Your task to perform on an android device: Open Yahoo.com Image 0: 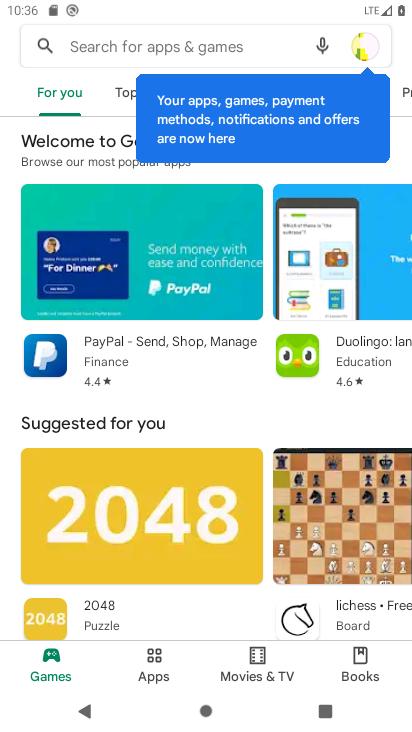
Step 0: press home button
Your task to perform on an android device: Open Yahoo.com Image 1: 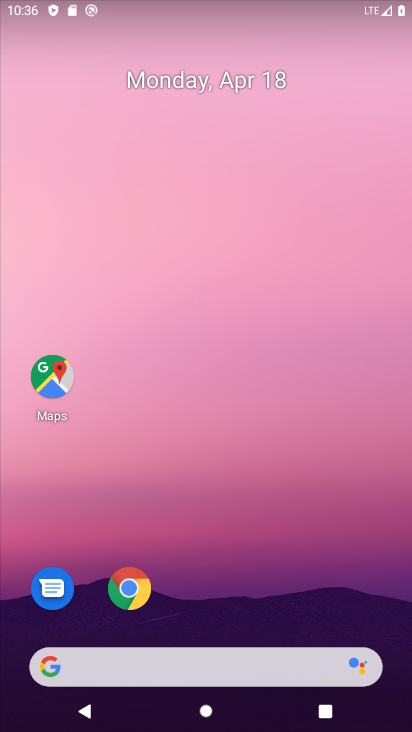
Step 1: click (122, 588)
Your task to perform on an android device: Open Yahoo.com Image 2: 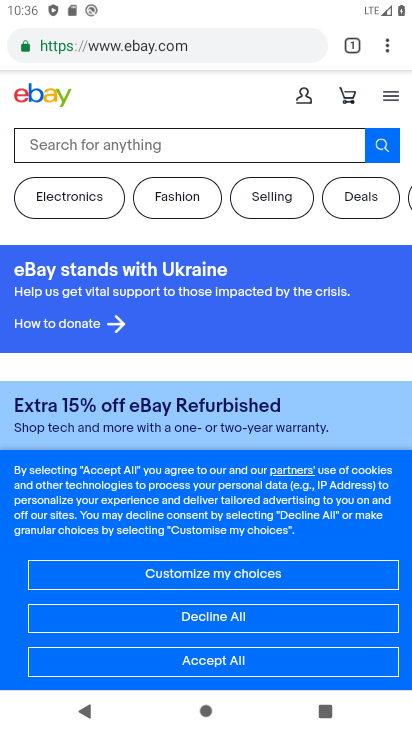
Step 2: click (383, 44)
Your task to perform on an android device: Open Yahoo.com Image 3: 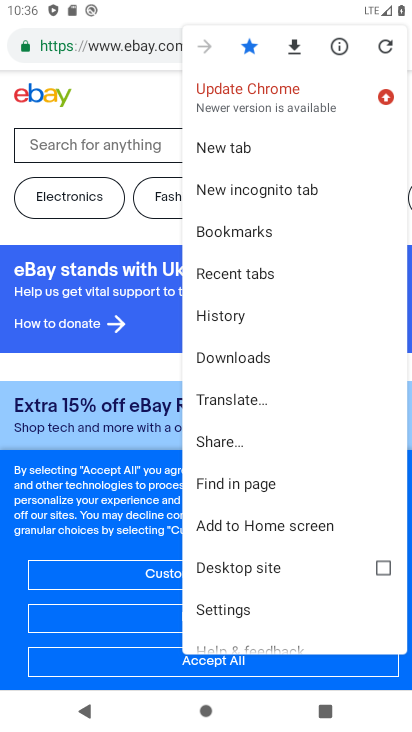
Step 3: click (84, 43)
Your task to perform on an android device: Open Yahoo.com Image 4: 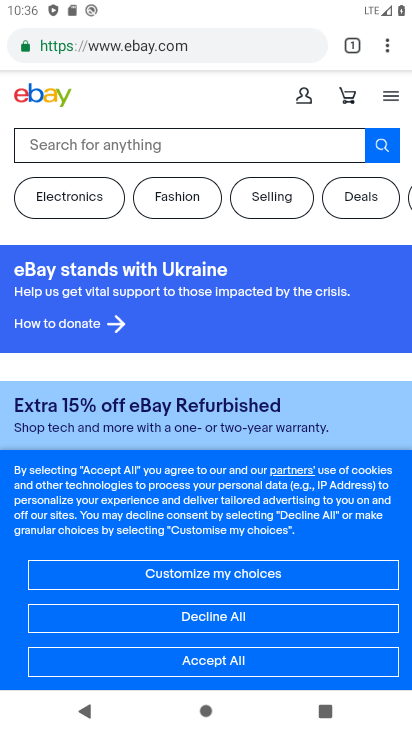
Step 4: click (145, 41)
Your task to perform on an android device: Open Yahoo.com Image 5: 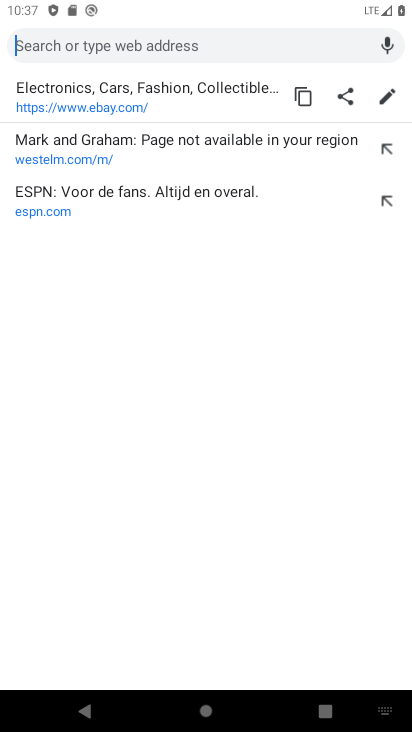
Step 5: type "yahoo.com"
Your task to perform on an android device: Open Yahoo.com Image 6: 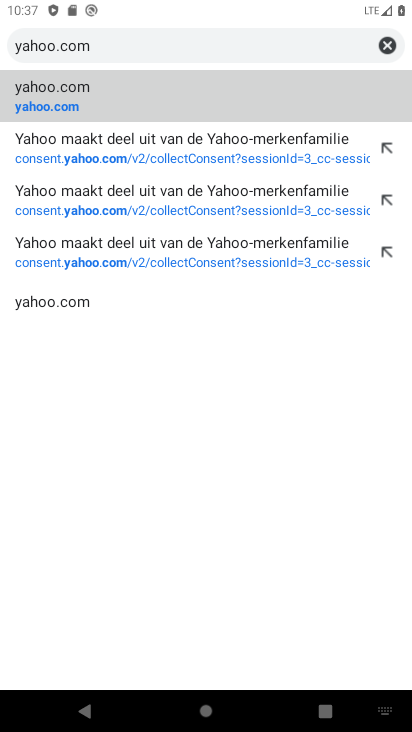
Step 6: click (42, 103)
Your task to perform on an android device: Open Yahoo.com Image 7: 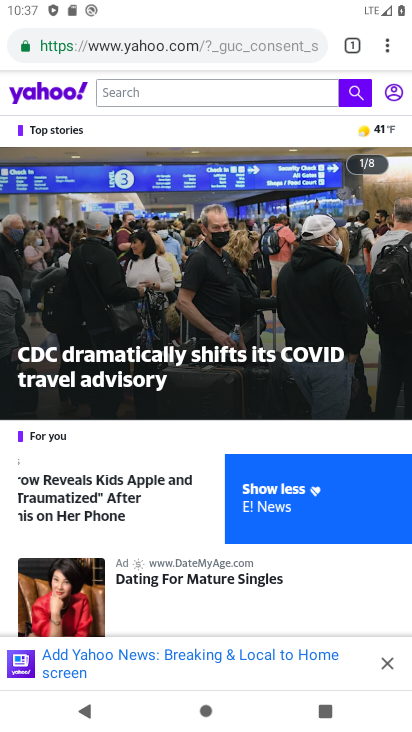
Step 7: task complete